Your task to perform on an android device: Toggle the flashlight Image 0: 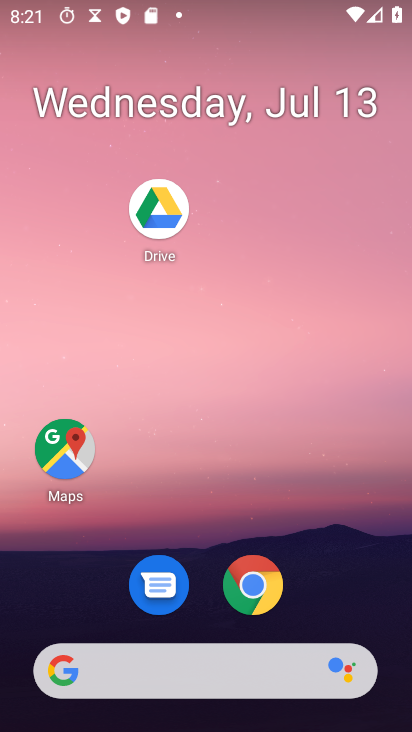
Step 0: press home button
Your task to perform on an android device: Toggle the flashlight Image 1: 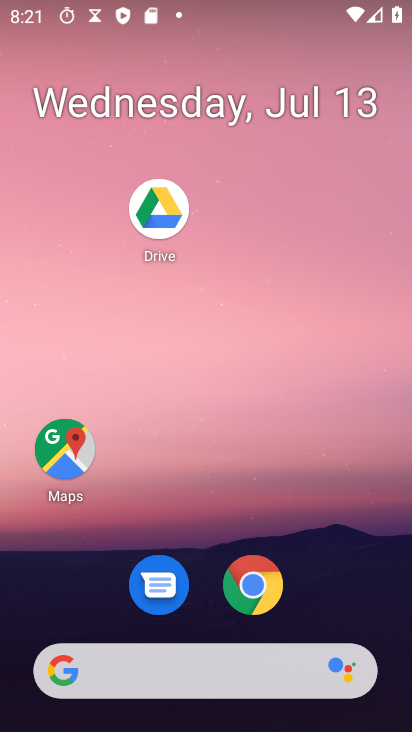
Step 1: task complete